Your task to perform on an android device: Open Google Image 0: 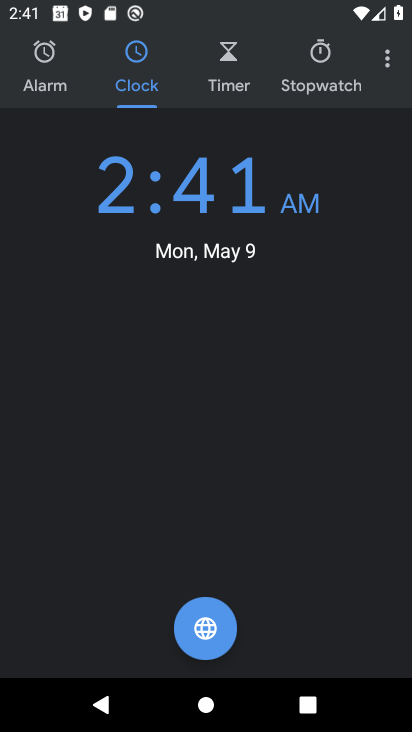
Step 0: press home button
Your task to perform on an android device: Open Google Image 1: 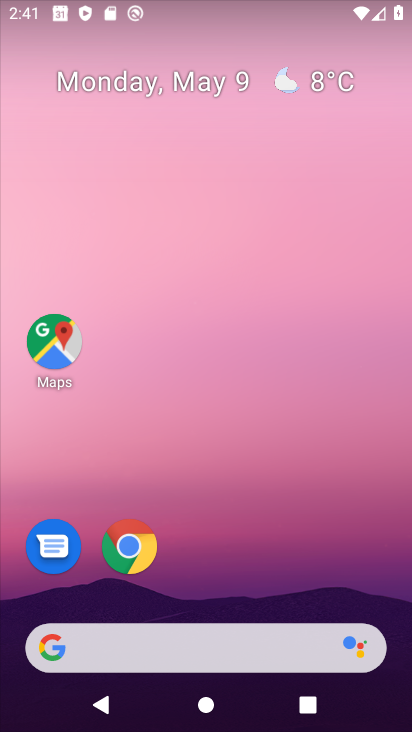
Step 1: click (100, 650)
Your task to perform on an android device: Open Google Image 2: 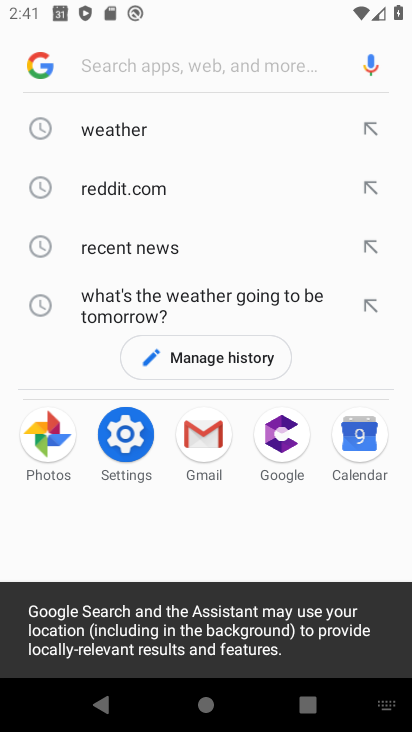
Step 2: click (39, 51)
Your task to perform on an android device: Open Google Image 3: 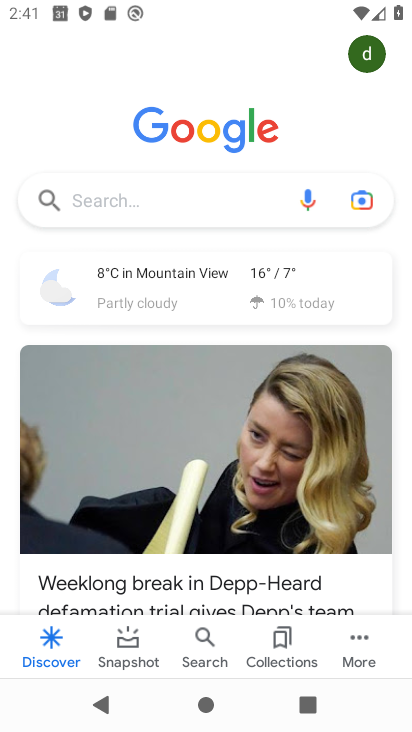
Step 3: task complete